Your task to perform on an android device: Open Amazon Image 0: 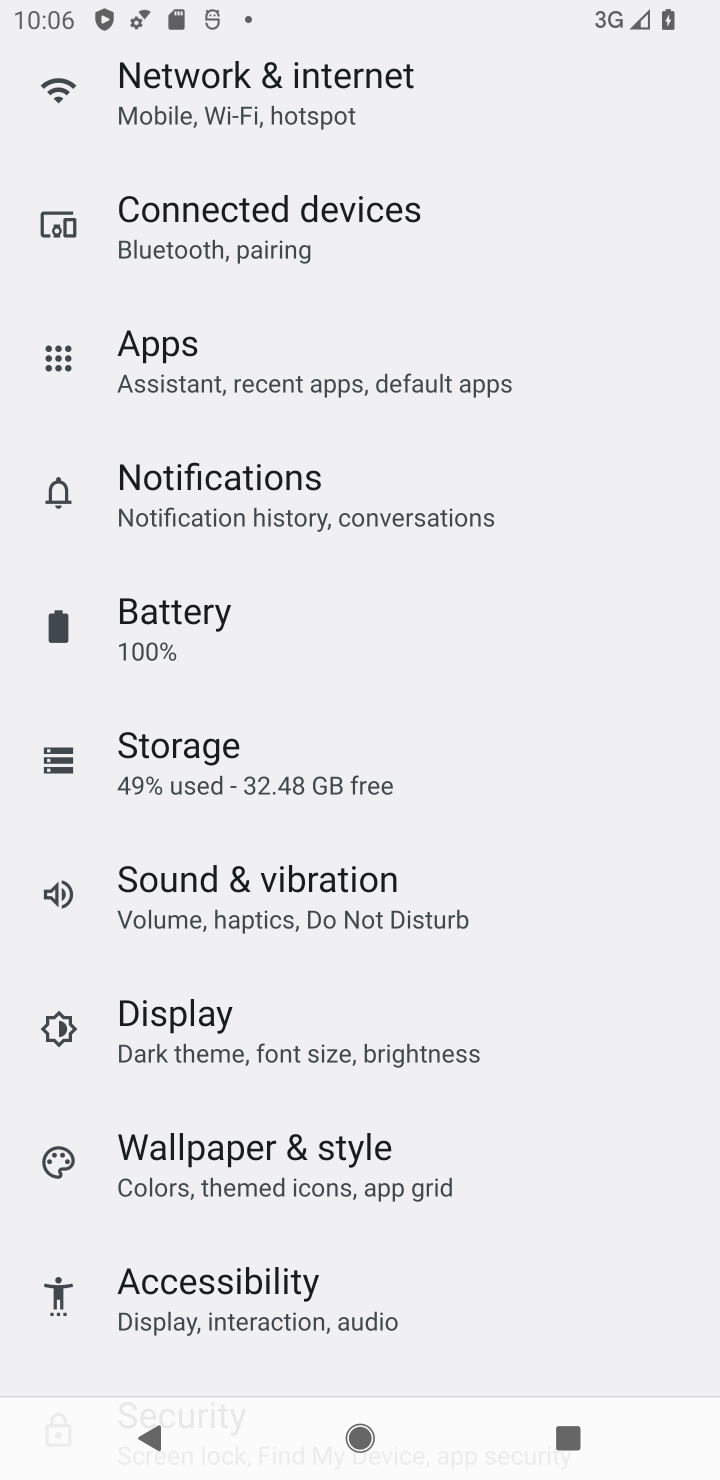
Step 0: press home button
Your task to perform on an android device: Open Amazon Image 1: 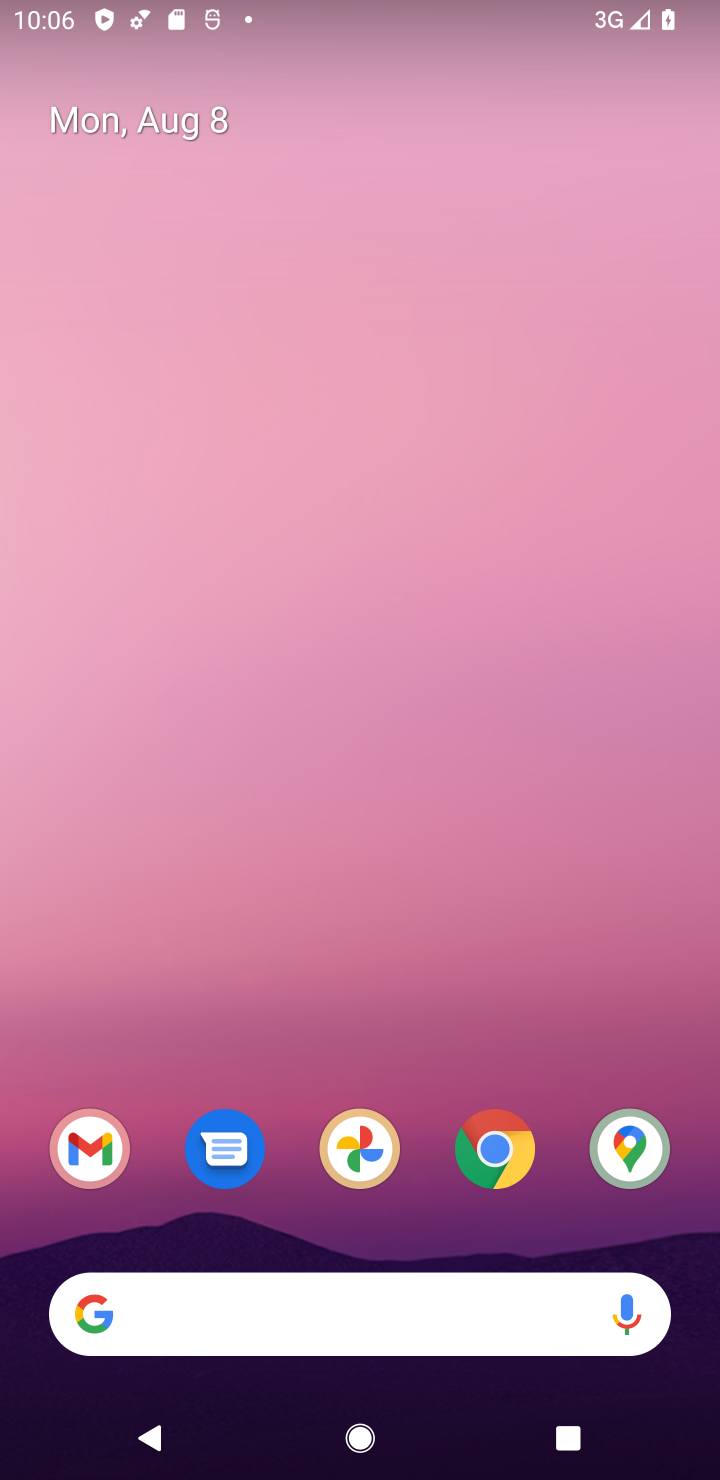
Step 1: drag from (197, 1057) to (288, 461)
Your task to perform on an android device: Open Amazon Image 2: 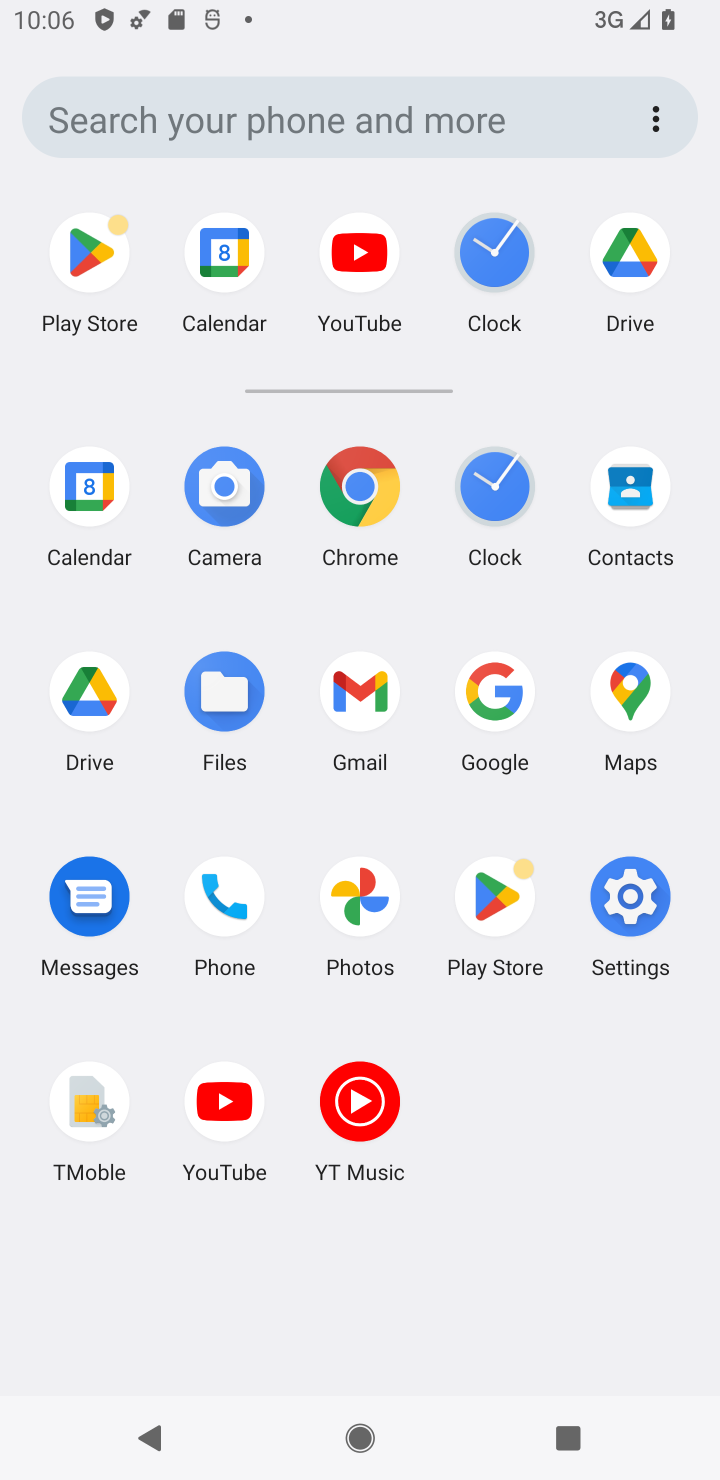
Step 2: click (486, 682)
Your task to perform on an android device: Open Amazon Image 3: 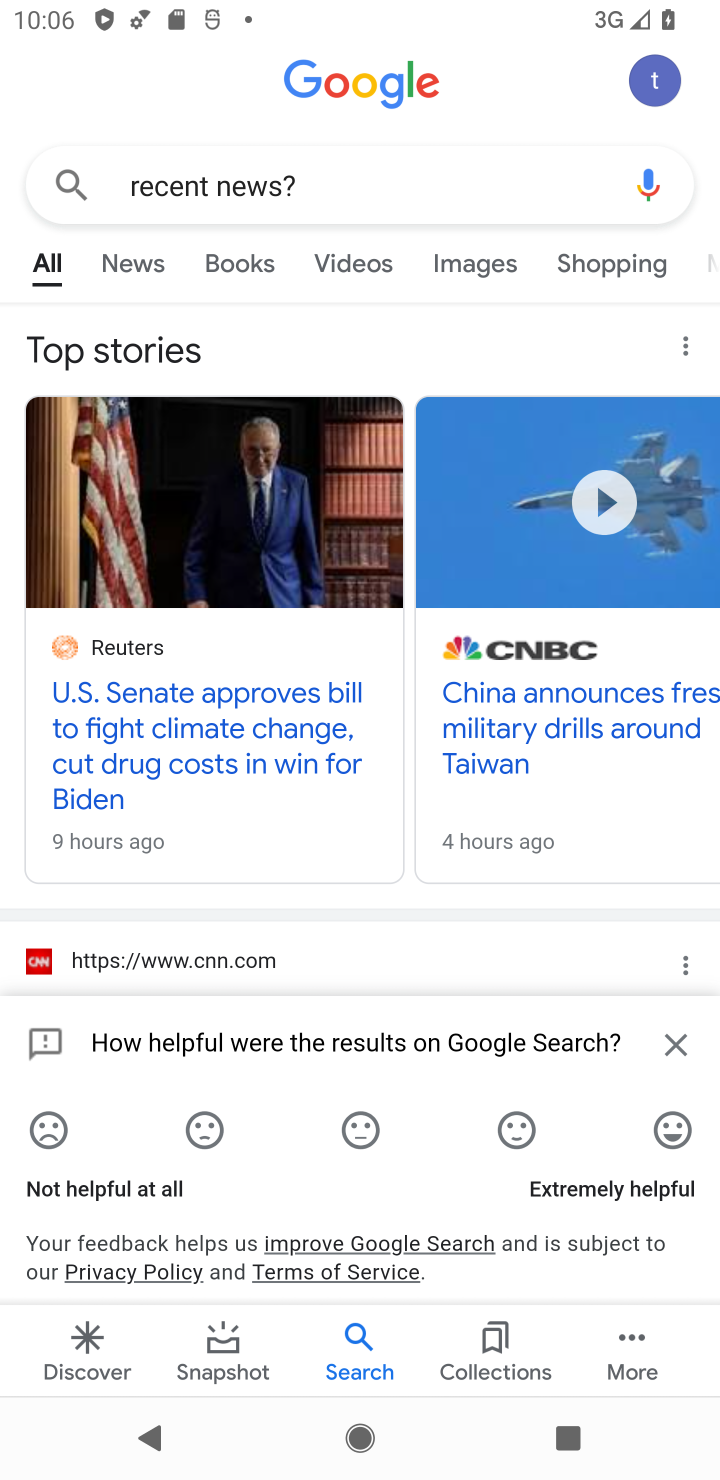
Step 3: click (286, 205)
Your task to perform on an android device: Open Amazon Image 4: 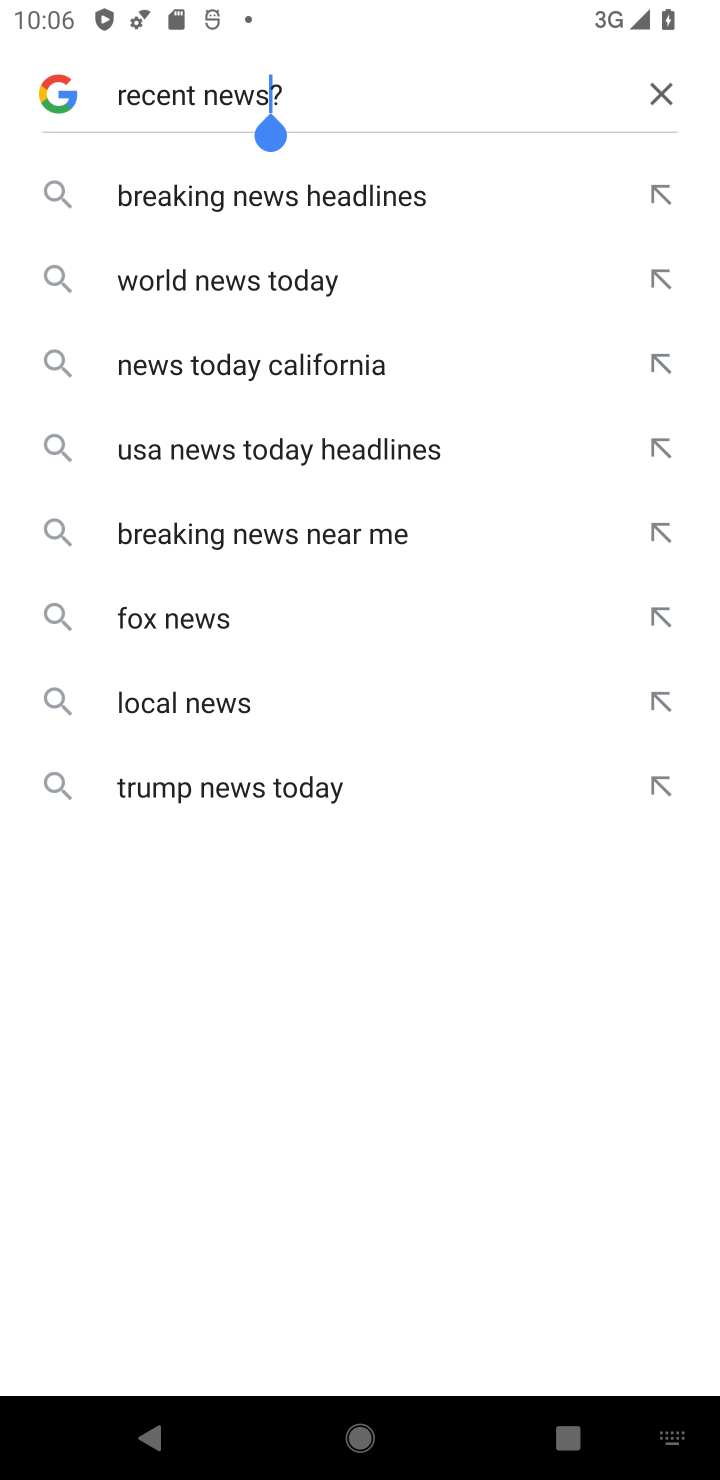
Step 4: click (667, 95)
Your task to perform on an android device: Open Amazon Image 5: 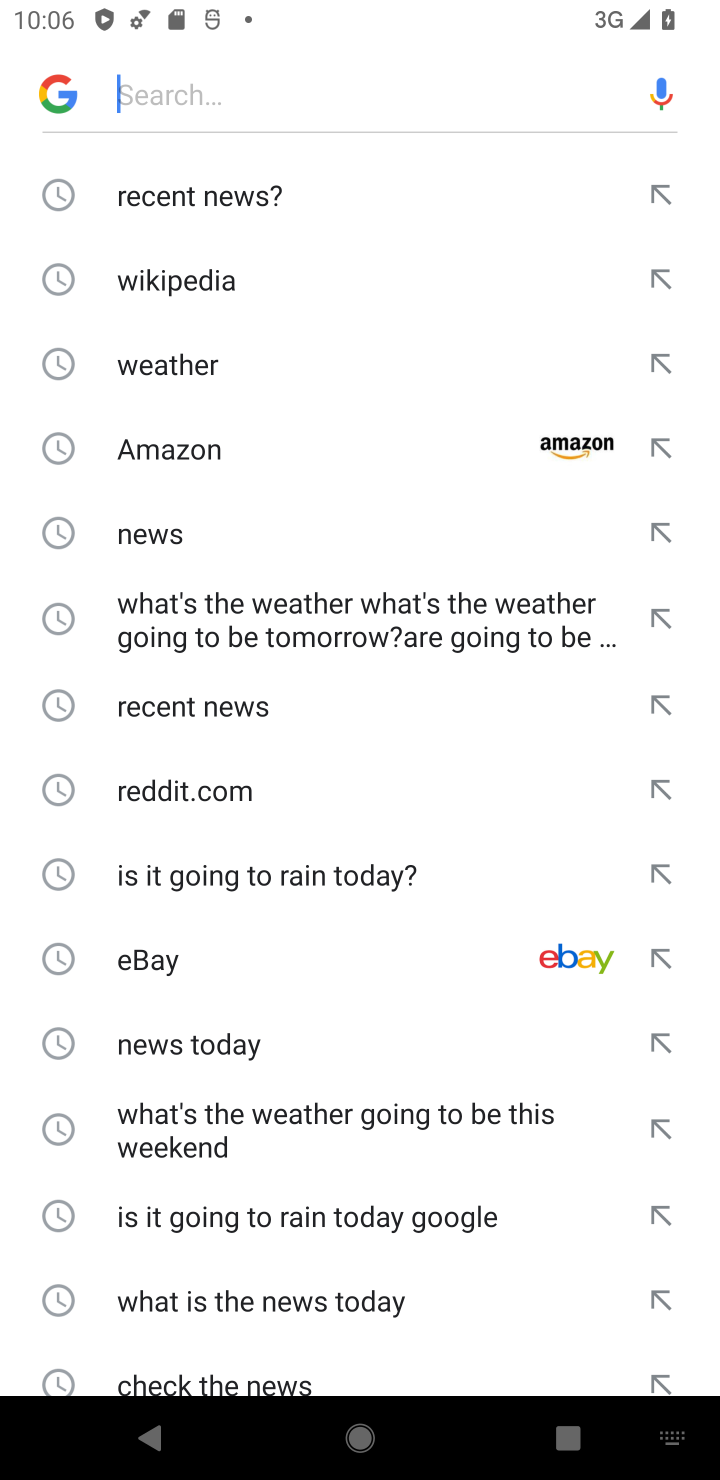
Step 5: click (279, 455)
Your task to perform on an android device: Open Amazon Image 6: 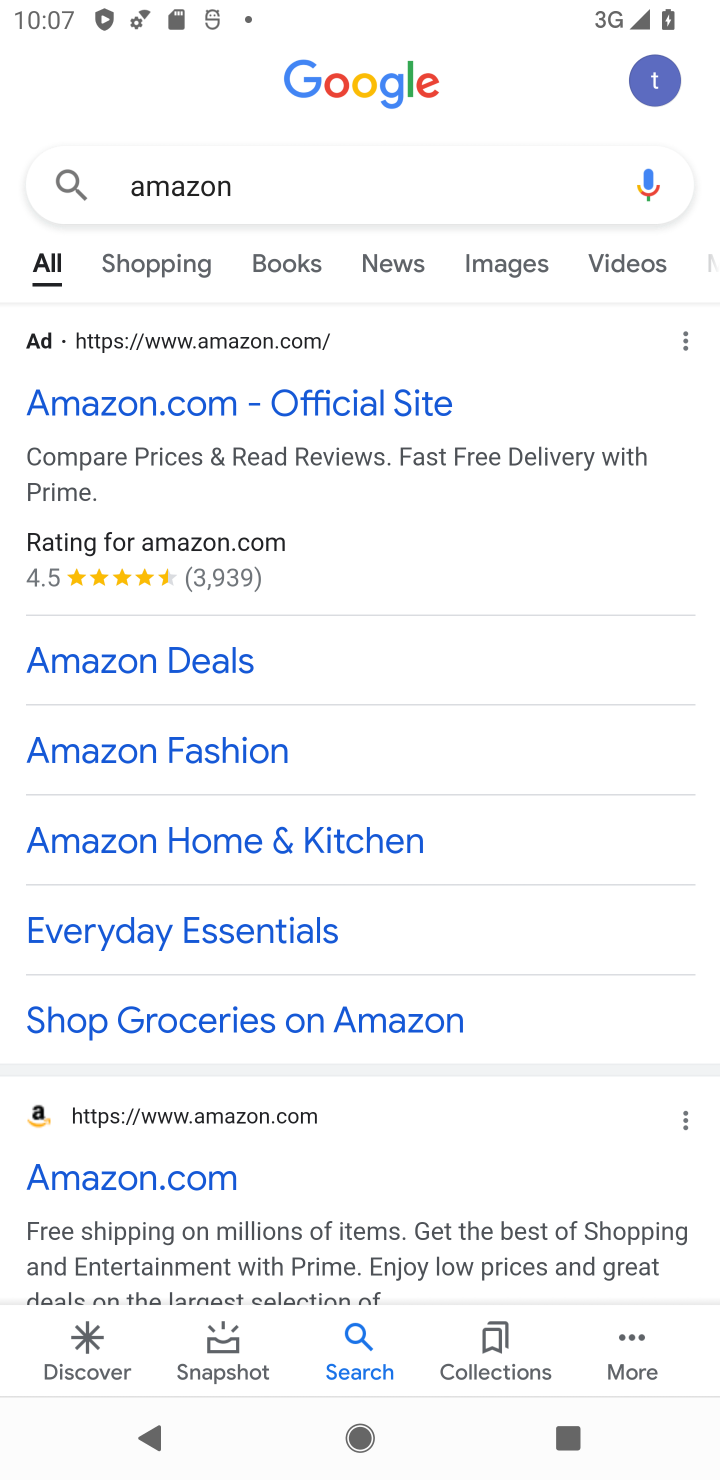
Step 6: click (103, 404)
Your task to perform on an android device: Open Amazon Image 7: 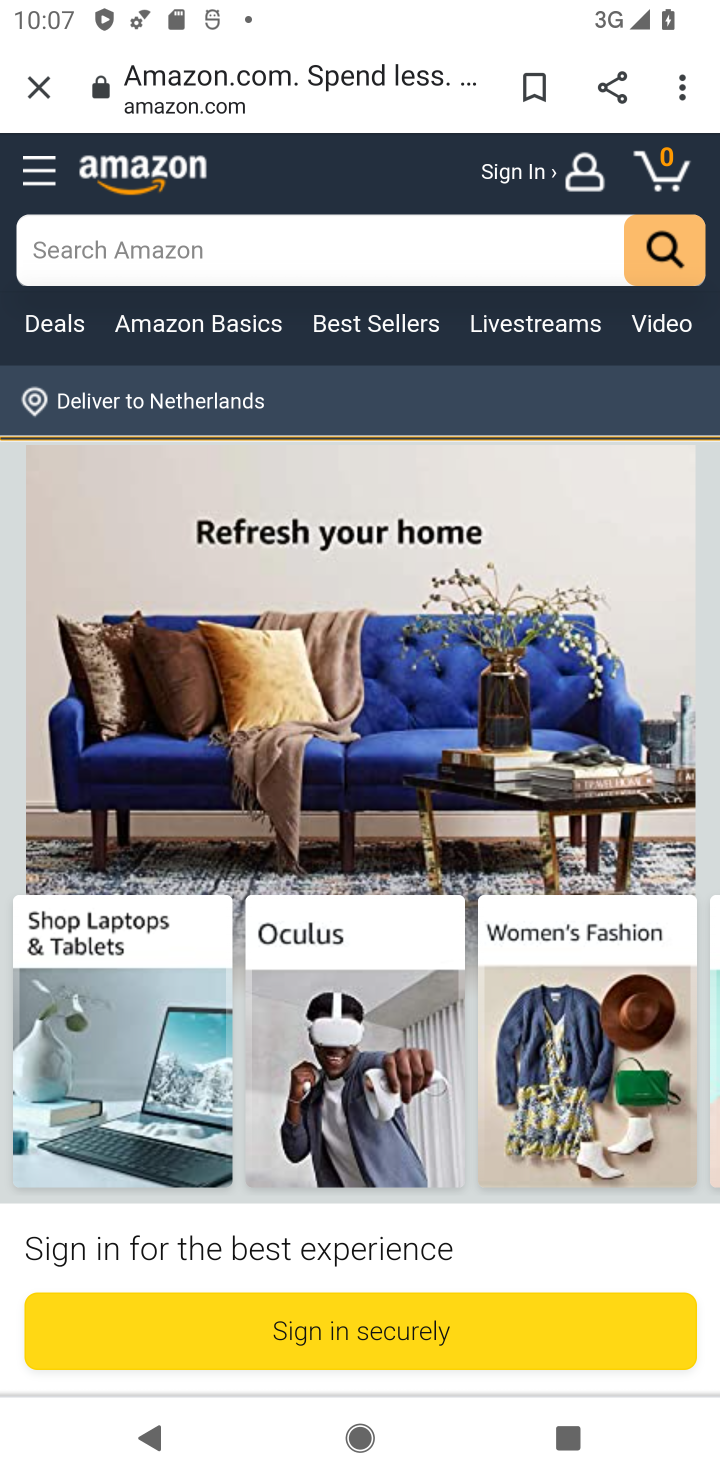
Step 7: task complete